Your task to perform on an android device: turn off notifications settings in the gmail app Image 0: 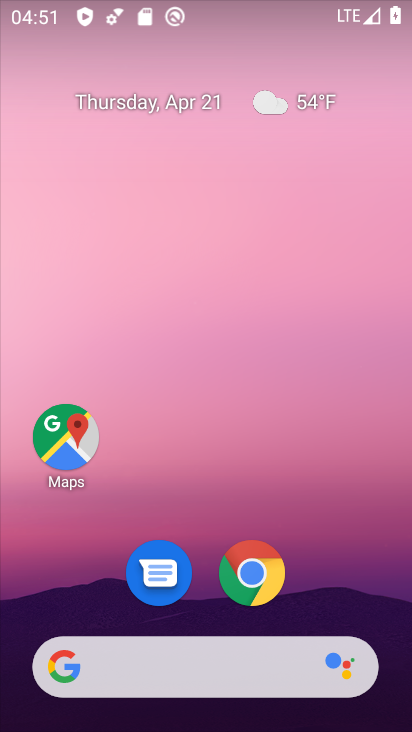
Step 0: drag from (390, 636) to (306, 210)
Your task to perform on an android device: turn off notifications settings in the gmail app Image 1: 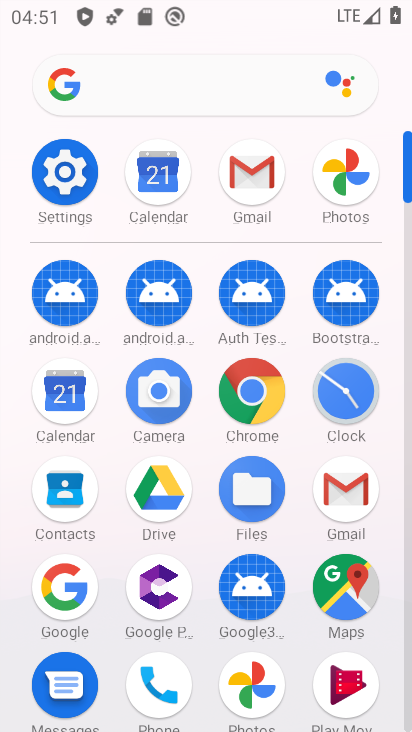
Step 1: click (406, 699)
Your task to perform on an android device: turn off notifications settings in the gmail app Image 2: 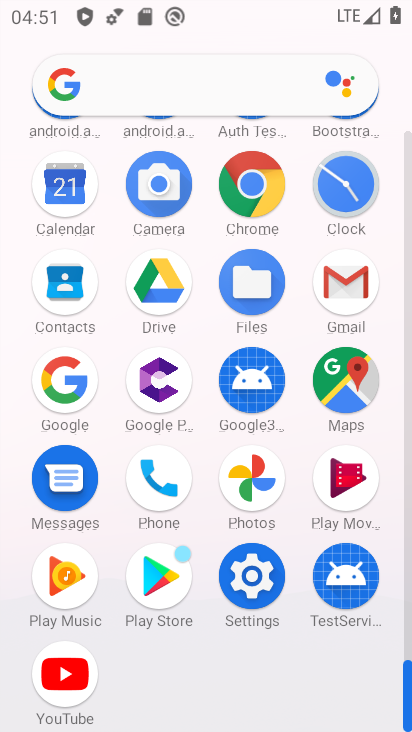
Step 2: click (346, 279)
Your task to perform on an android device: turn off notifications settings in the gmail app Image 3: 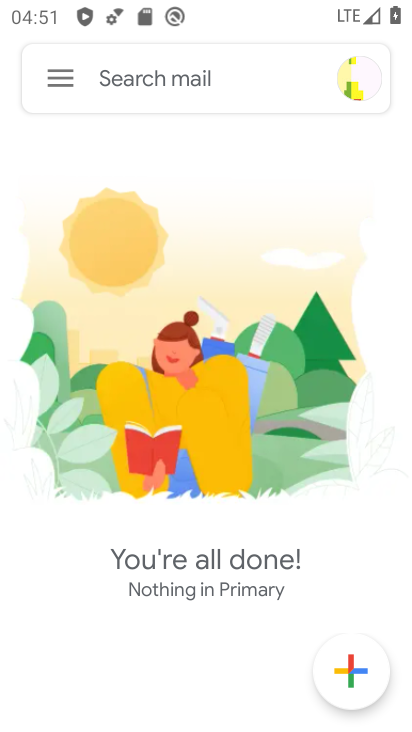
Step 3: click (60, 77)
Your task to perform on an android device: turn off notifications settings in the gmail app Image 4: 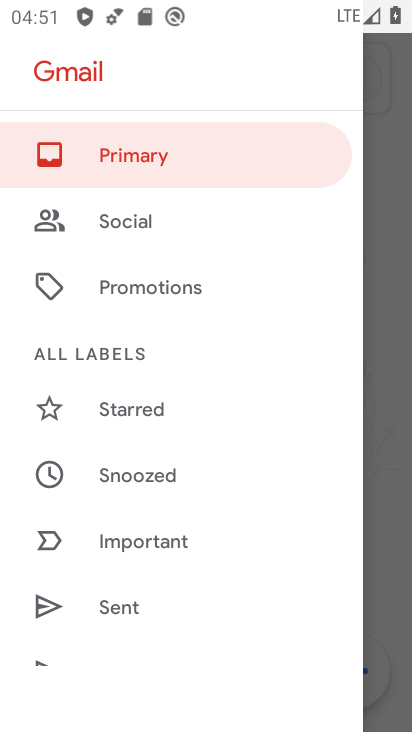
Step 4: drag from (198, 564) to (250, 294)
Your task to perform on an android device: turn off notifications settings in the gmail app Image 5: 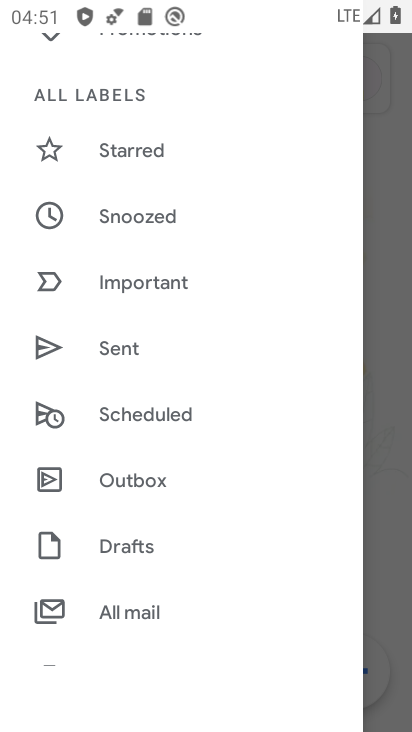
Step 5: drag from (188, 560) to (245, 252)
Your task to perform on an android device: turn off notifications settings in the gmail app Image 6: 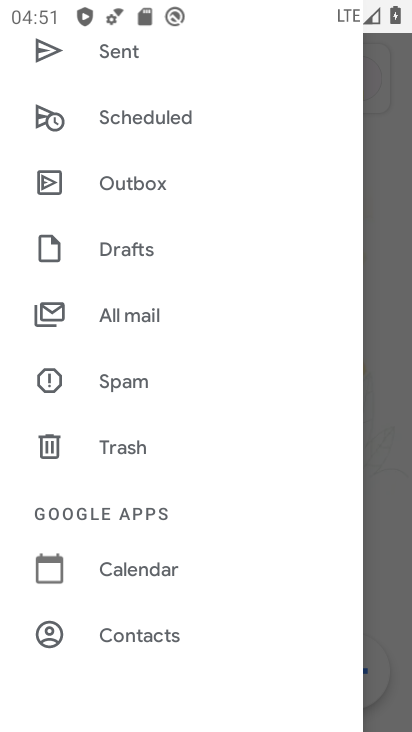
Step 6: drag from (207, 544) to (235, 262)
Your task to perform on an android device: turn off notifications settings in the gmail app Image 7: 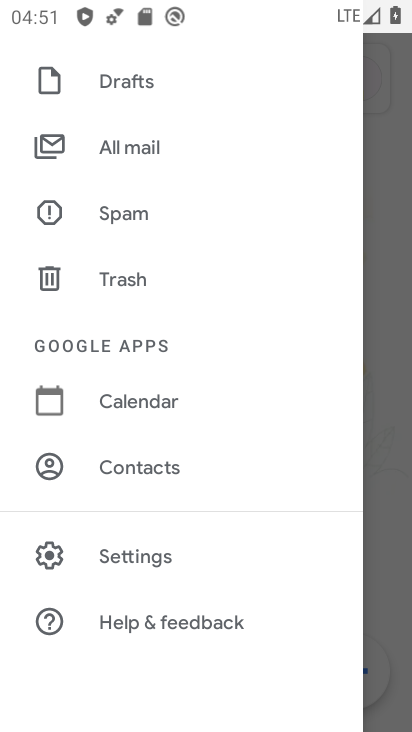
Step 7: click (129, 559)
Your task to perform on an android device: turn off notifications settings in the gmail app Image 8: 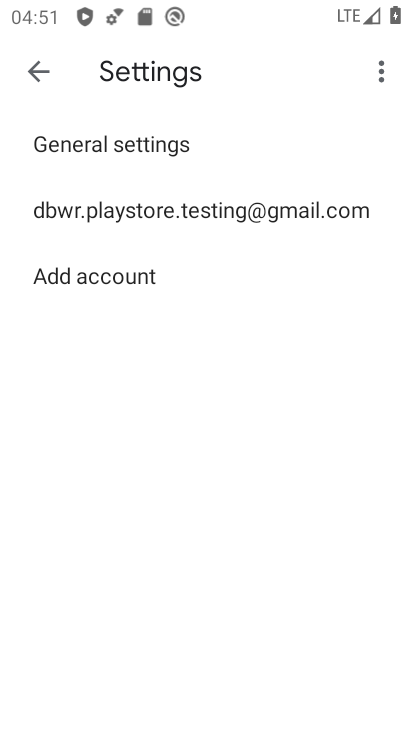
Step 8: click (124, 203)
Your task to perform on an android device: turn off notifications settings in the gmail app Image 9: 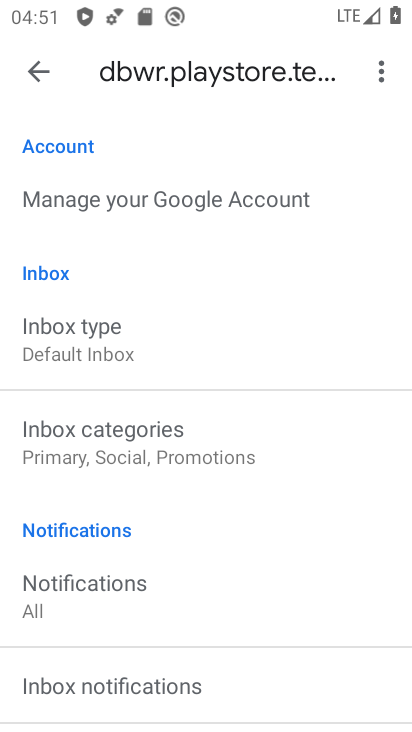
Step 9: drag from (274, 540) to (277, 316)
Your task to perform on an android device: turn off notifications settings in the gmail app Image 10: 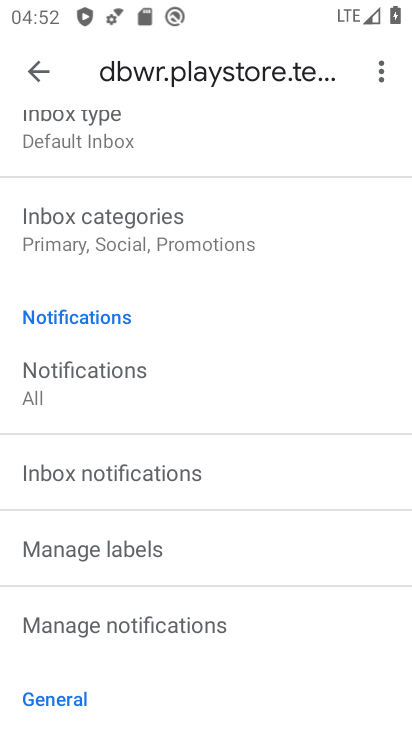
Step 10: click (144, 613)
Your task to perform on an android device: turn off notifications settings in the gmail app Image 11: 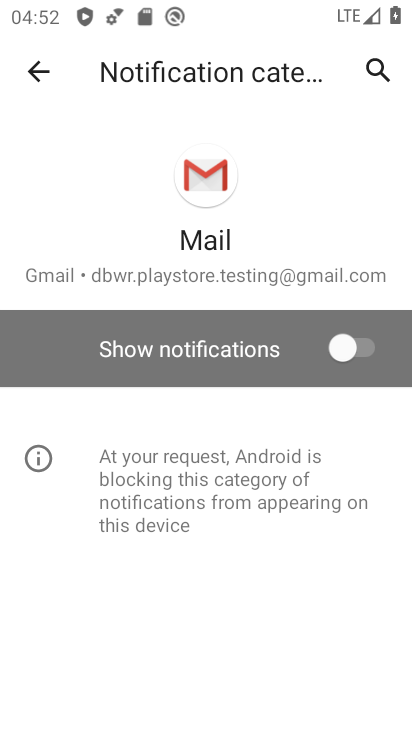
Step 11: task complete